Your task to perform on an android device: Open network settings Image 0: 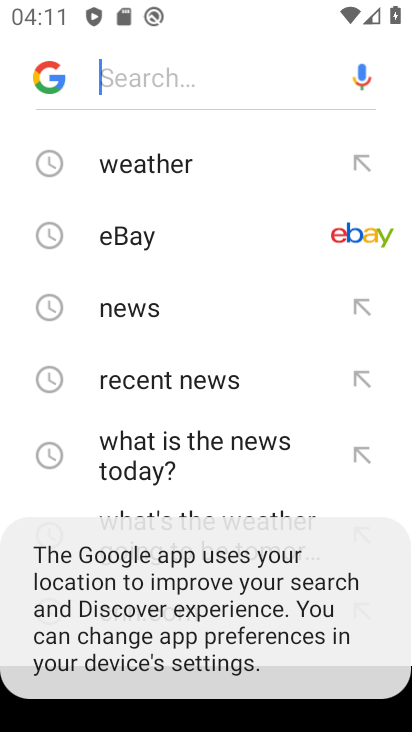
Step 0: press home button
Your task to perform on an android device: Open network settings Image 1: 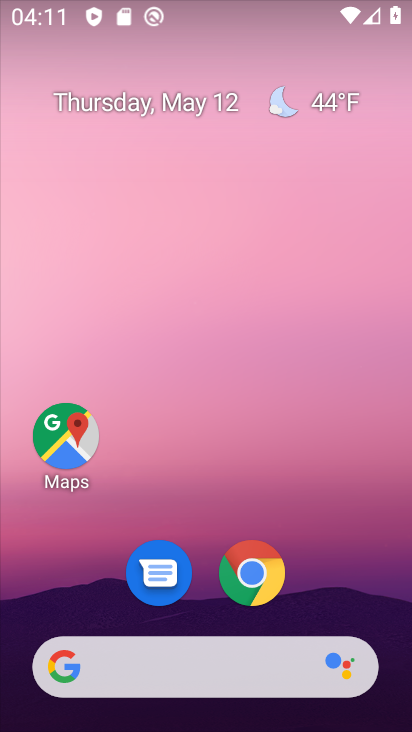
Step 1: drag from (392, 663) to (327, 90)
Your task to perform on an android device: Open network settings Image 2: 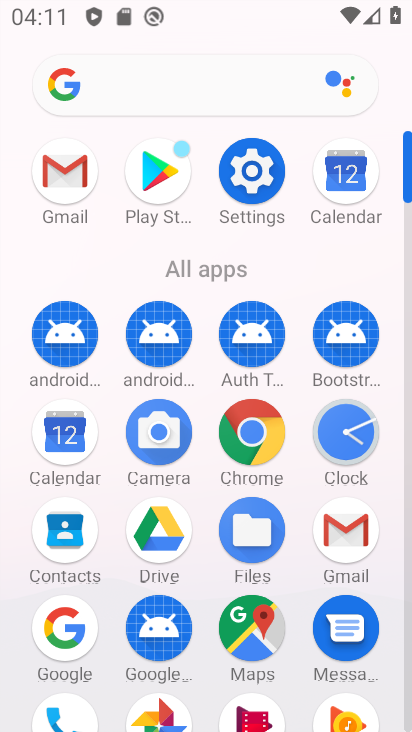
Step 2: click (407, 671)
Your task to perform on an android device: Open network settings Image 3: 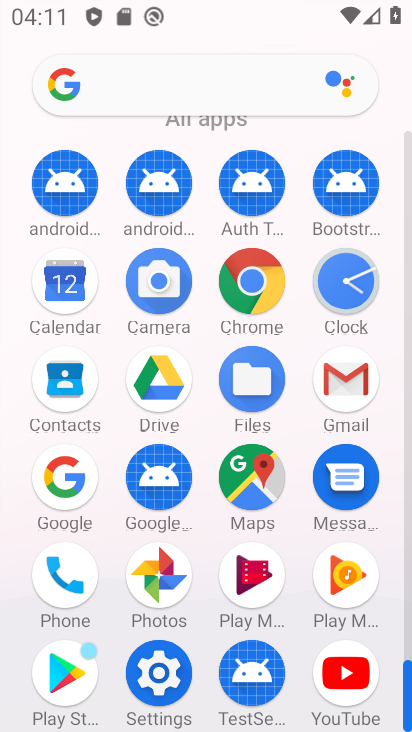
Step 3: click (157, 672)
Your task to perform on an android device: Open network settings Image 4: 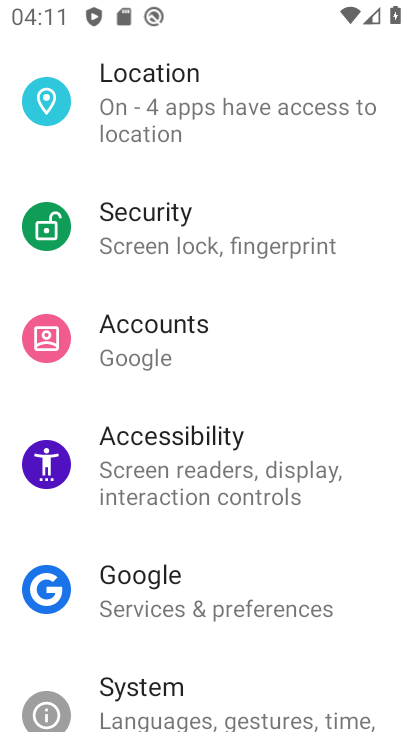
Step 4: drag from (328, 183) to (250, 530)
Your task to perform on an android device: Open network settings Image 5: 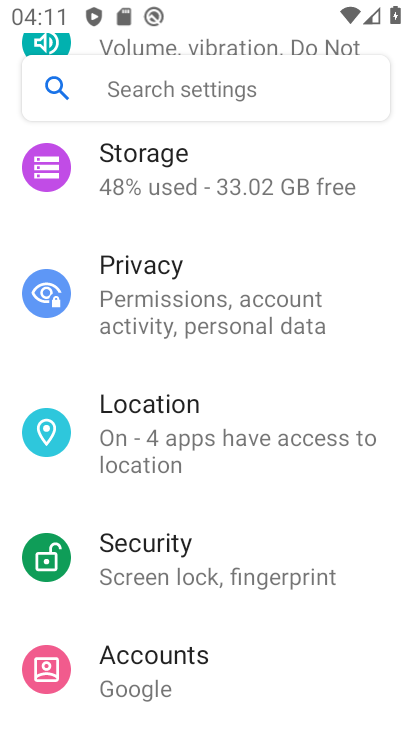
Step 5: drag from (327, 154) to (242, 488)
Your task to perform on an android device: Open network settings Image 6: 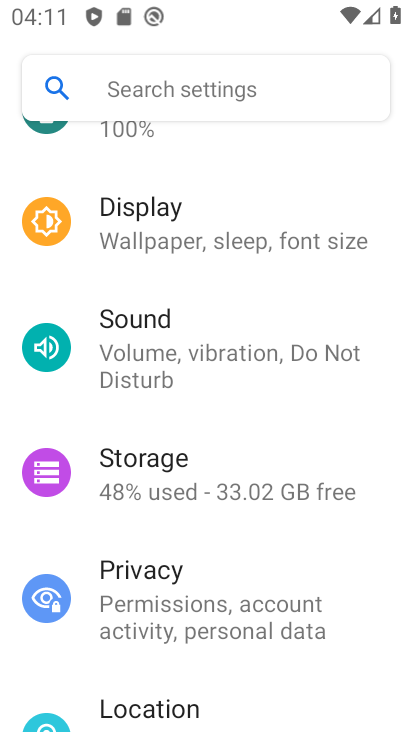
Step 6: drag from (302, 183) to (234, 518)
Your task to perform on an android device: Open network settings Image 7: 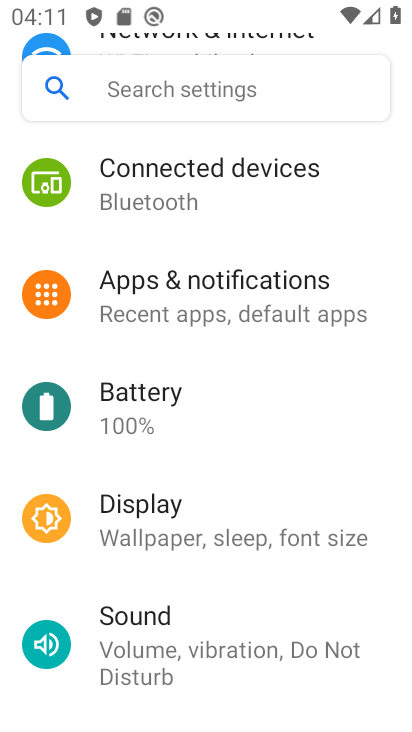
Step 7: drag from (337, 195) to (294, 497)
Your task to perform on an android device: Open network settings Image 8: 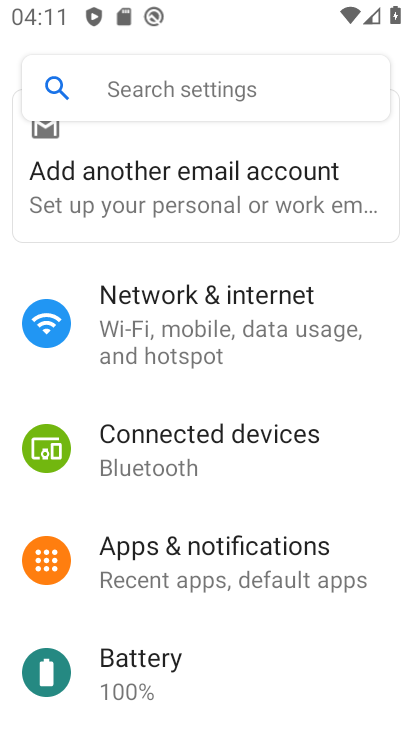
Step 8: click (133, 310)
Your task to perform on an android device: Open network settings Image 9: 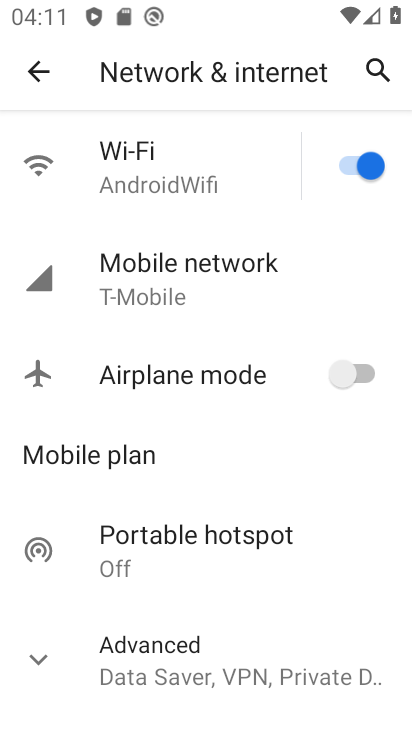
Step 9: click (129, 262)
Your task to perform on an android device: Open network settings Image 10: 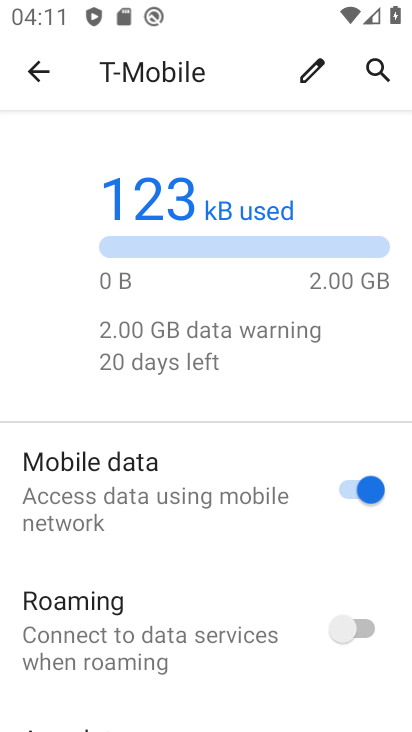
Step 10: task complete